Your task to perform on an android device: find which apps use the phone's location Image 0: 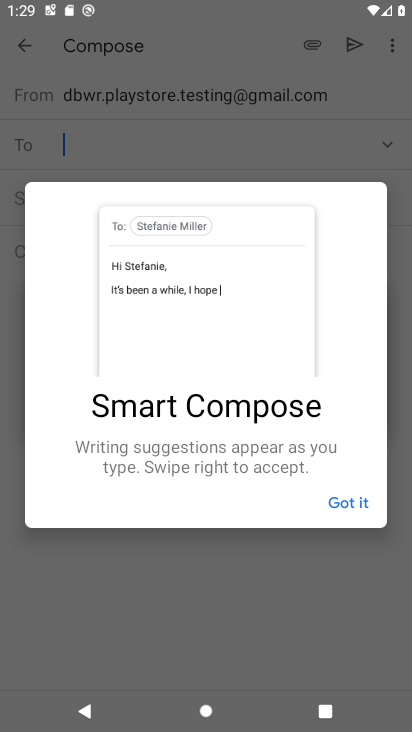
Step 0: press home button
Your task to perform on an android device: find which apps use the phone's location Image 1: 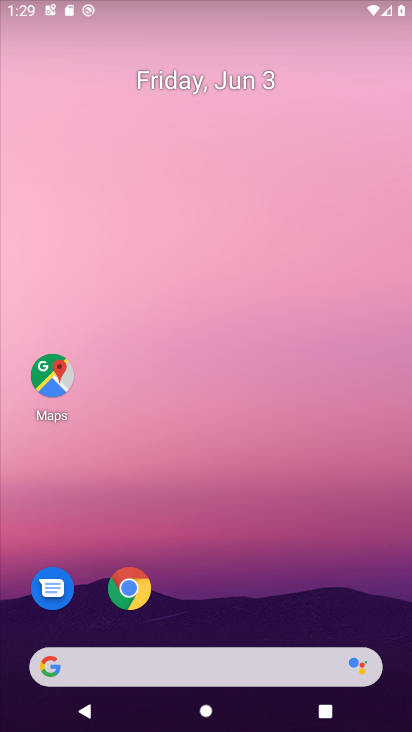
Step 1: drag from (223, 544) to (278, 51)
Your task to perform on an android device: find which apps use the phone's location Image 2: 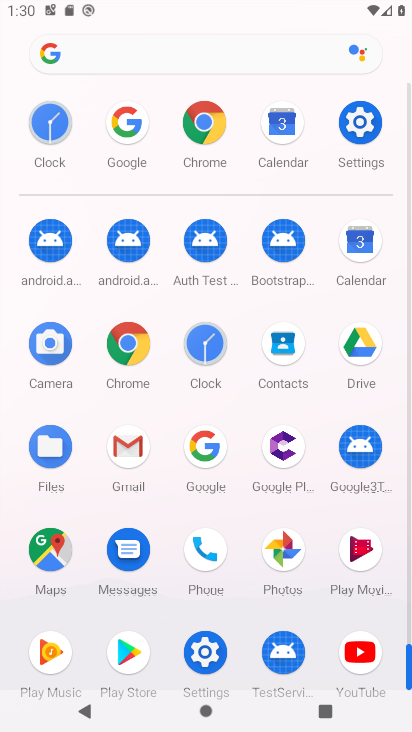
Step 2: click (346, 140)
Your task to perform on an android device: find which apps use the phone's location Image 3: 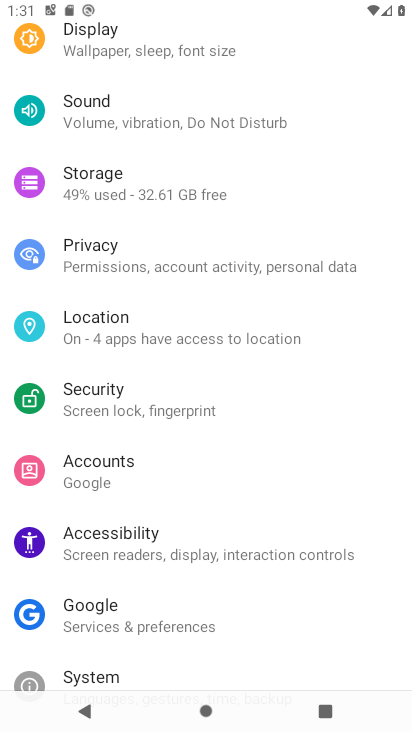
Step 3: click (212, 342)
Your task to perform on an android device: find which apps use the phone's location Image 4: 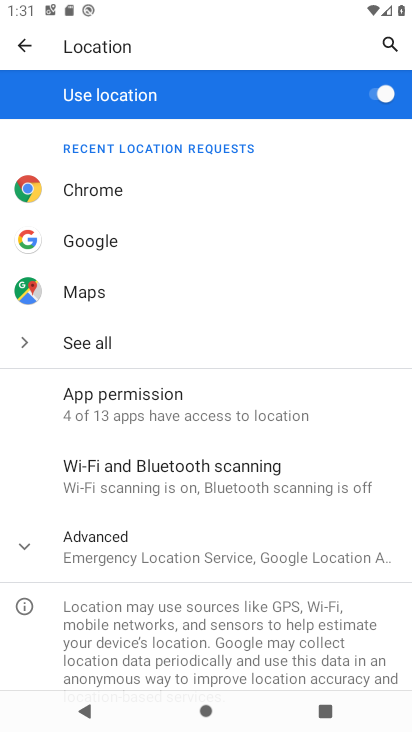
Step 4: click (180, 548)
Your task to perform on an android device: find which apps use the phone's location Image 5: 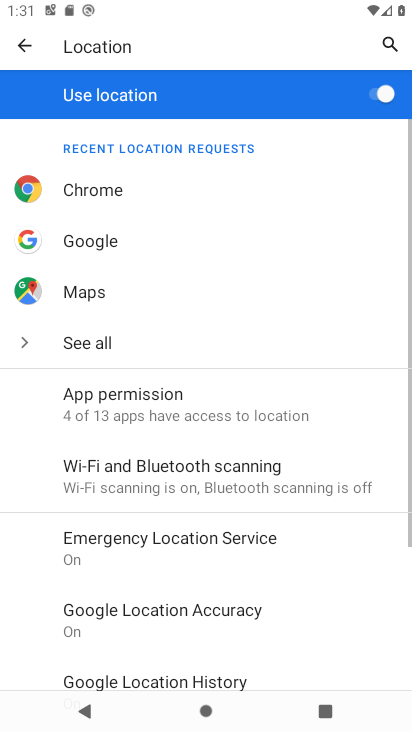
Step 5: drag from (202, 589) to (273, 279)
Your task to perform on an android device: find which apps use the phone's location Image 6: 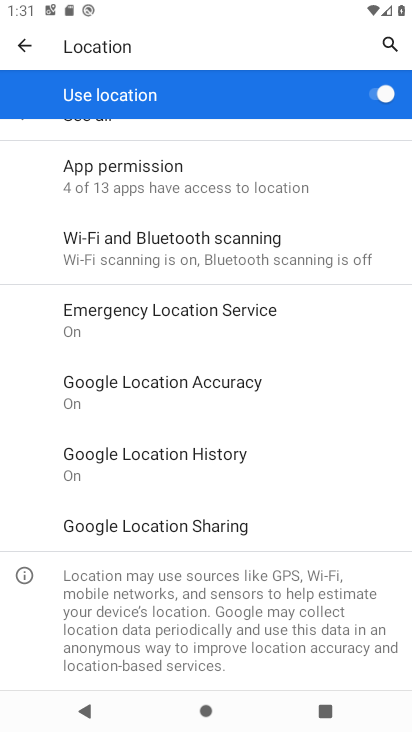
Step 6: click (246, 190)
Your task to perform on an android device: find which apps use the phone's location Image 7: 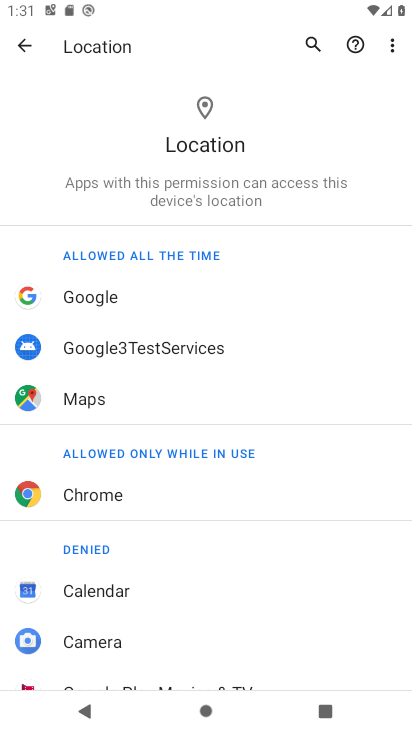
Step 7: task complete